Your task to perform on an android device: Open battery settings Image 0: 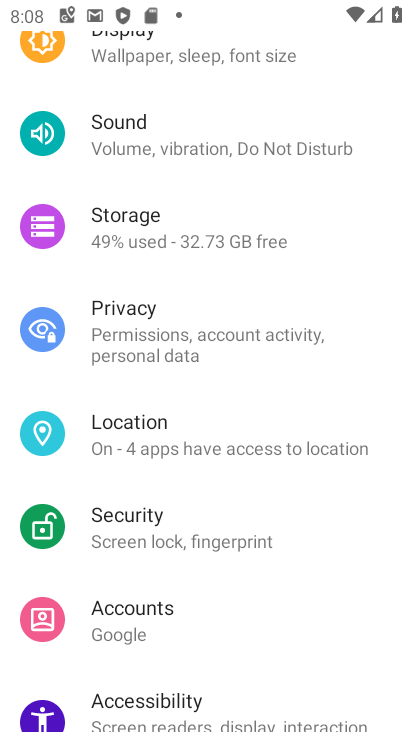
Step 0: drag from (242, 203) to (237, 629)
Your task to perform on an android device: Open battery settings Image 1: 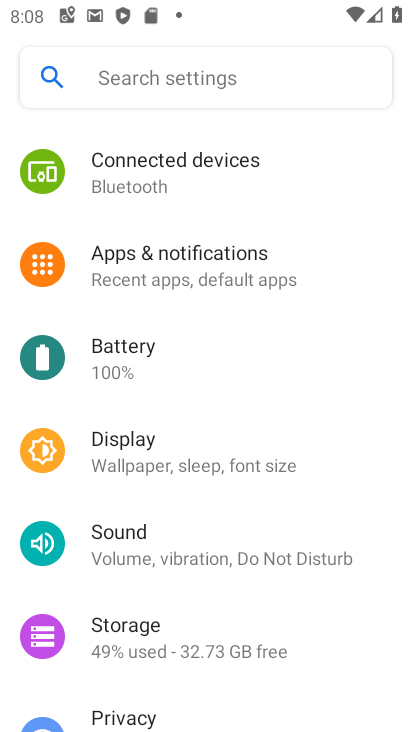
Step 1: click (127, 349)
Your task to perform on an android device: Open battery settings Image 2: 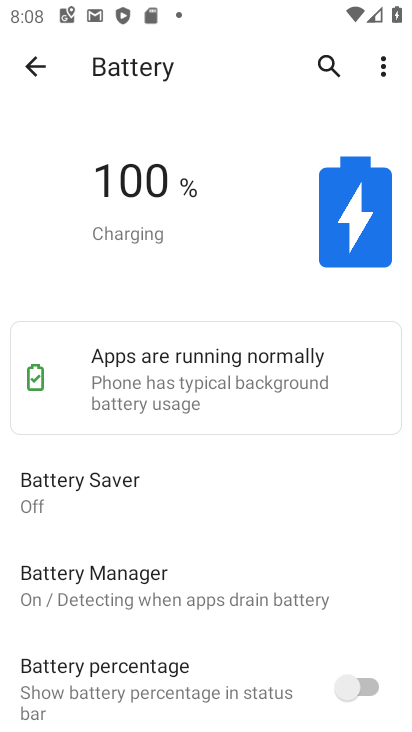
Step 2: task complete